Your task to perform on an android device: open wifi settings Image 0: 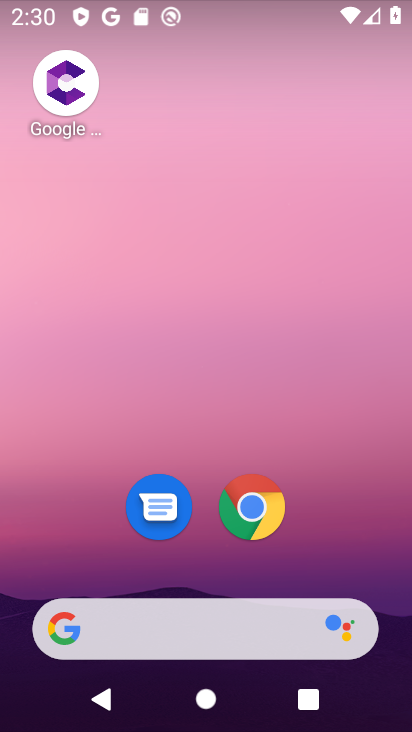
Step 0: drag from (380, 457) to (383, 173)
Your task to perform on an android device: open wifi settings Image 1: 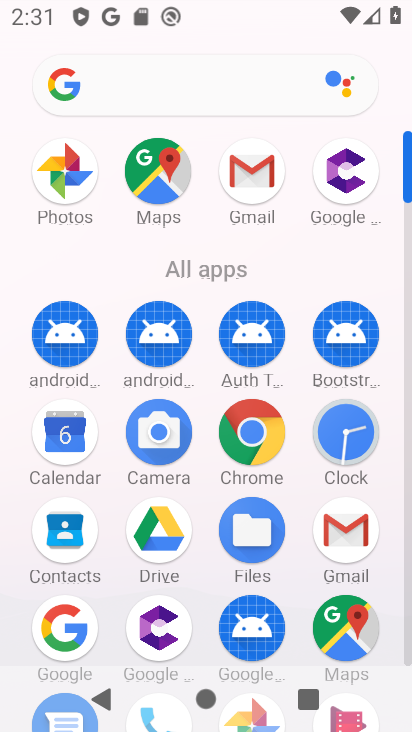
Step 1: drag from (200, 574) to (197, 183)
Your task to perform on an android device: open wifi settings Image 2: 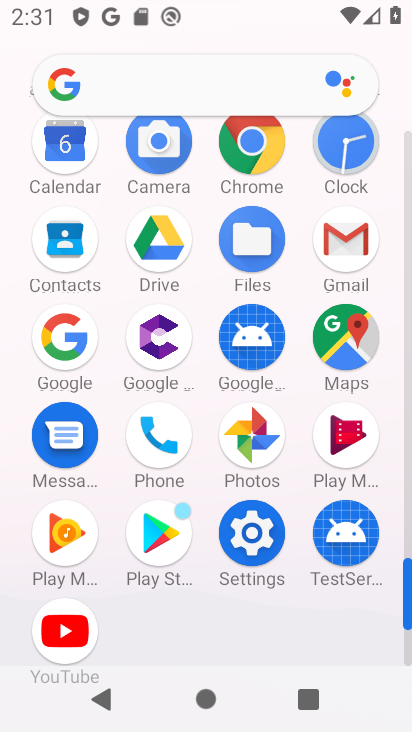
Step 2: click (249, 542)
Your task to perform on an android device: open wifi settings Image 3: 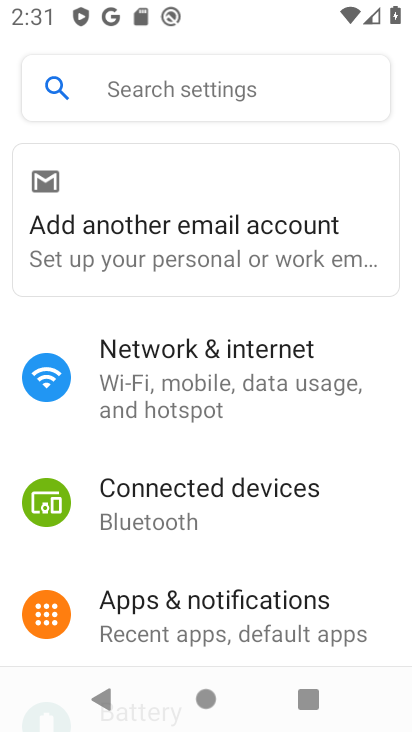
Step 3: click (196, 380)
Your task to perform on an android device: open wifi settings Image 4: 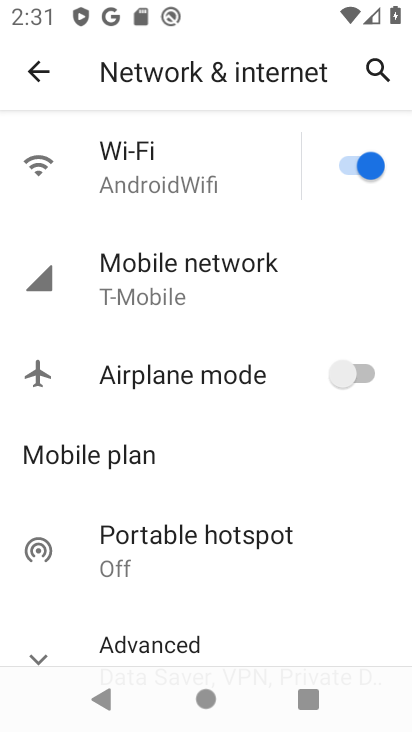
Step 4: click (112, 160)
Your task to perform on an android device: open wifi settings Image 5: 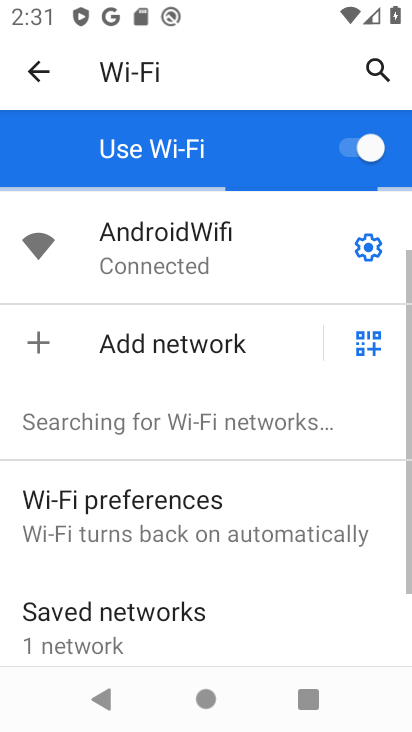
Step 5: click (371, 258)
Your task to perform on an android device: open wifi settings Image 6: 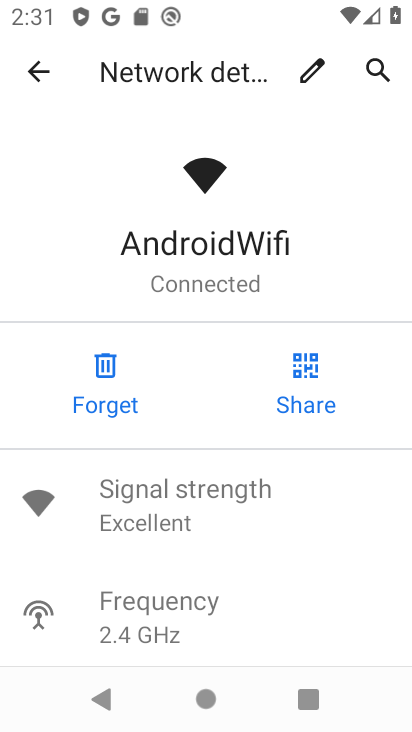
Step 6: drag from (239, 618) to (233, 244)
Your task to perform on an android device: open wifi settings Image 7: 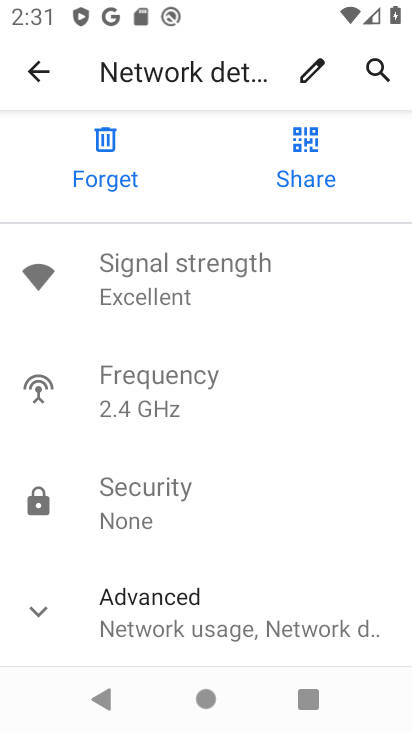
Step 7: drag from (249, 508) to (250, 324)
Your task to perform on an android device: open wifi settings Image 8: 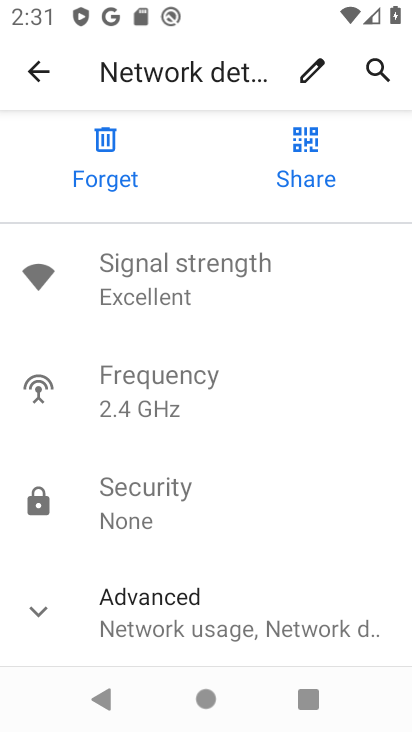
Step 8: click (50, 600)
Your task to perform on an android device: open wifi settings Image 9: 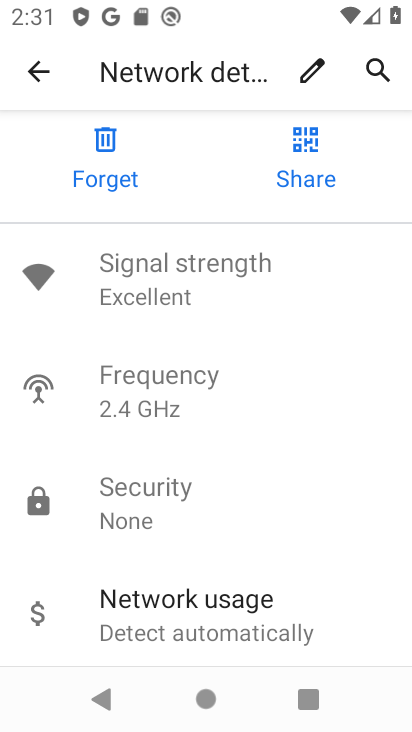
Step 9: task complete